Your task to perform on an android device: check google app version Image 0: 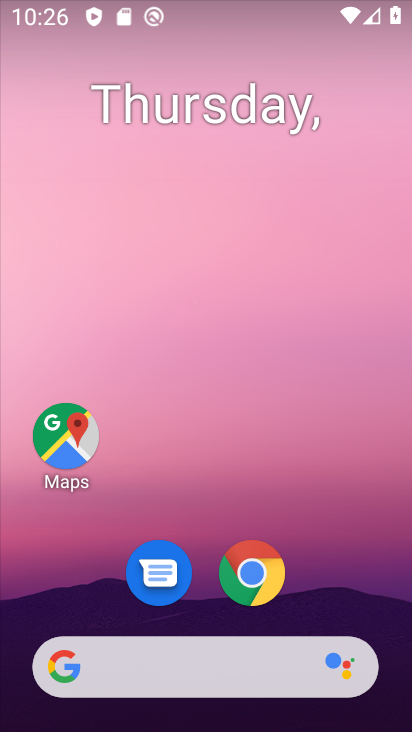
Step 0: drag from (285, 421) to (280, 106)
Your task to perform on an android device: check google app version Image 1: 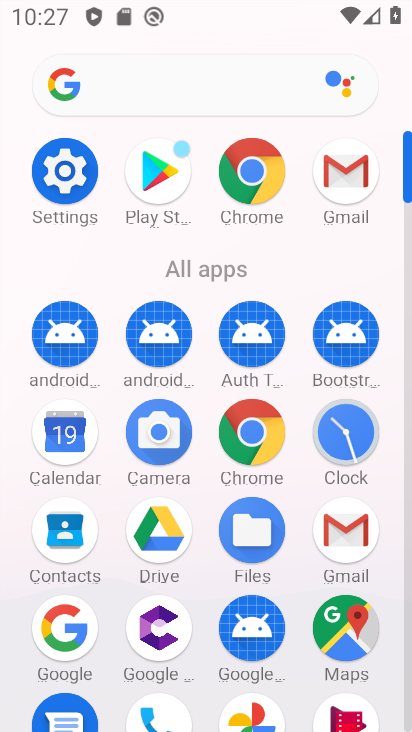
Step 1: click (72, 641)
Your task to perform on an android device: check google app version Image 2: 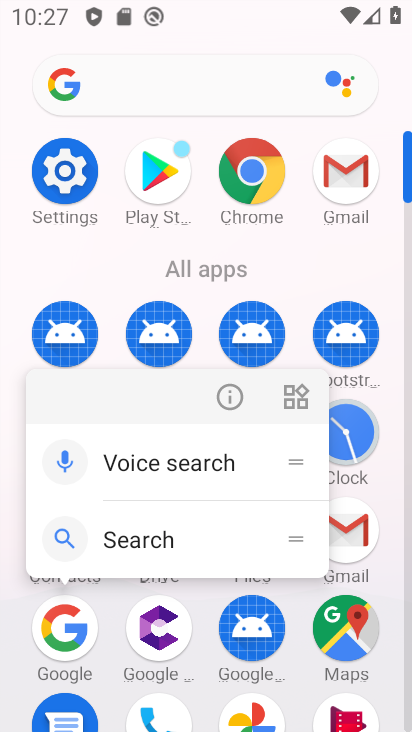
Step 2: click (239, 394)
Your task to perform on an android device: check google app version Image 3: 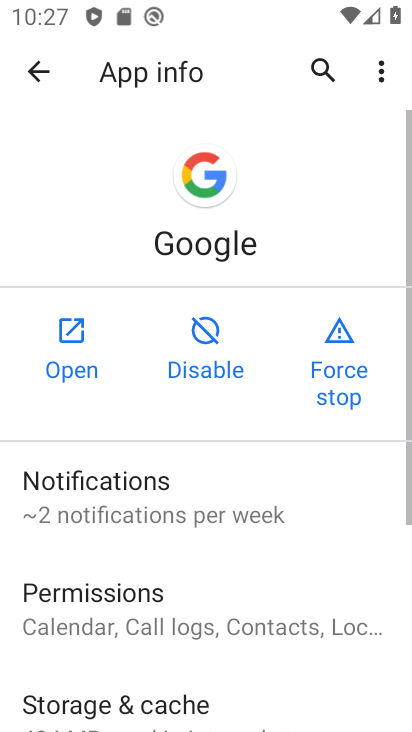
Step 3: drag from (181, 628) to (216, 54)
Your task to perform on an android device: check google app version Image 4: 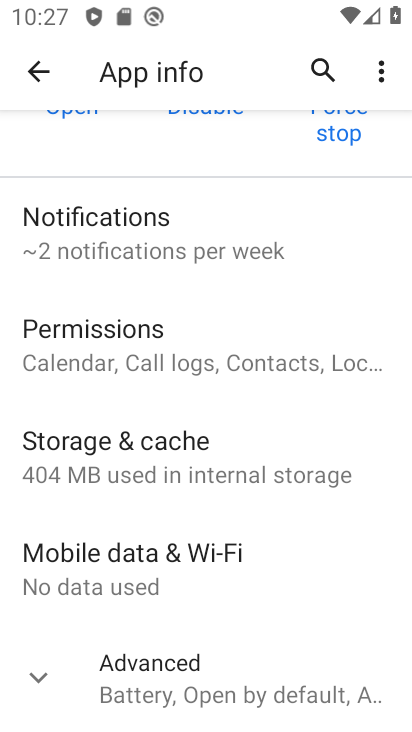
Step 4: click (145, 677)
Your task to perform on an android device: check google app version Image 5: 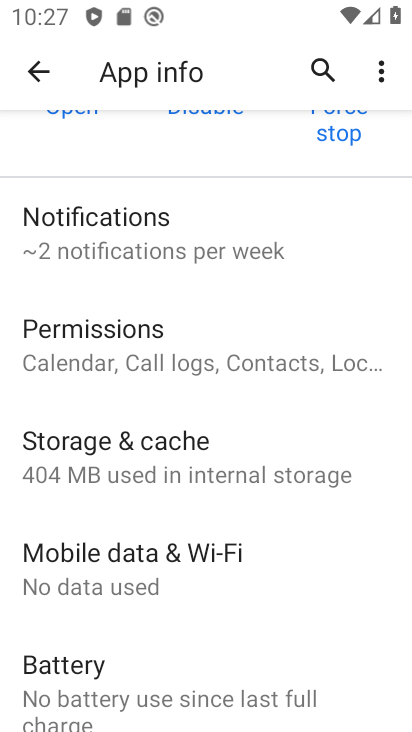
Step 5: task complete